Your task to perform on an android device: turn notification dots off Image 0: 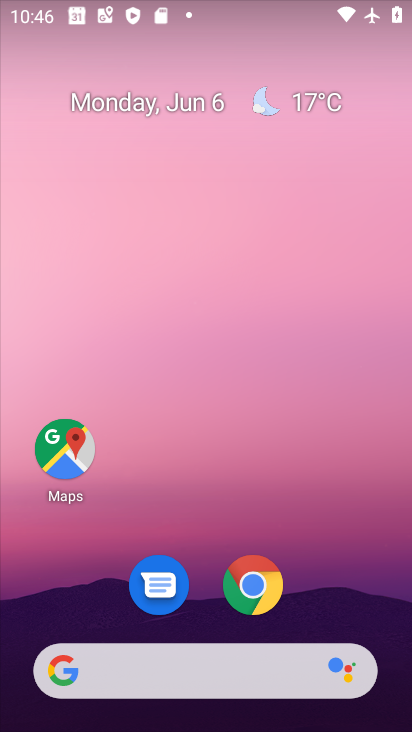
Step 0: drag from (202, 491) to (217, 12)
Your task to perform on an android device: turn notification dots off Image 1: 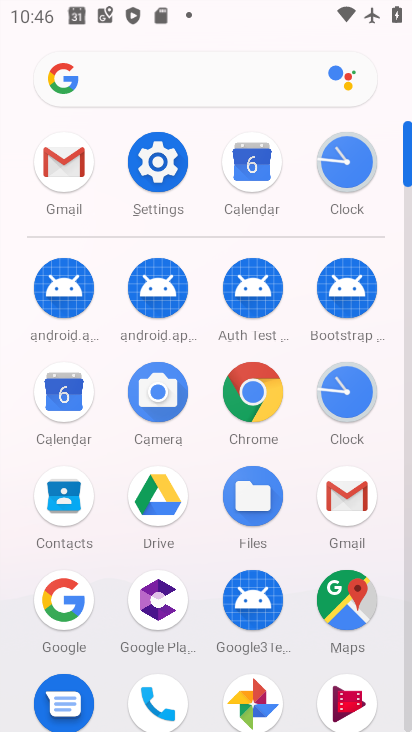
Step 1: click (166, 163)
Your task to perform on an android device: turn notification dots off Image 2: 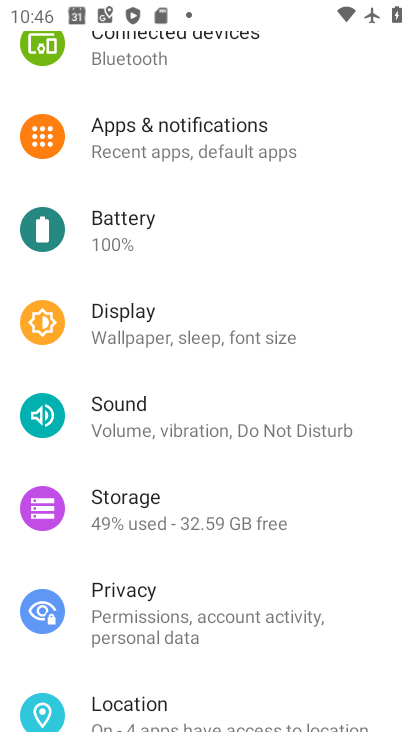
Step 2: click (182, 139)
Your task to perform on an android device: turn notification dots off Image 3: 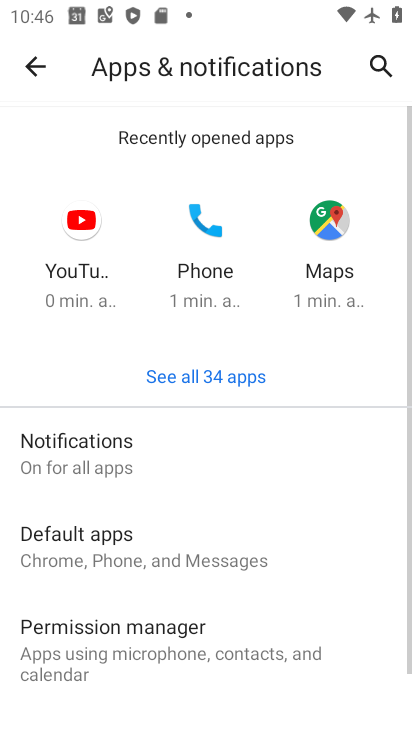
Step 3: click (173, 459)
Your task to perform on an android device: turn notification dots off Image 4: 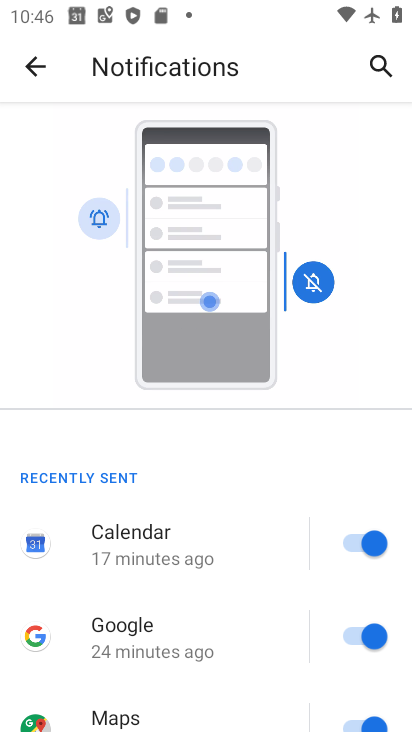
Step 4: drag from (240, 590) to (306, 3)
Your task to perform on an android device: turn notification dots off Image 5: 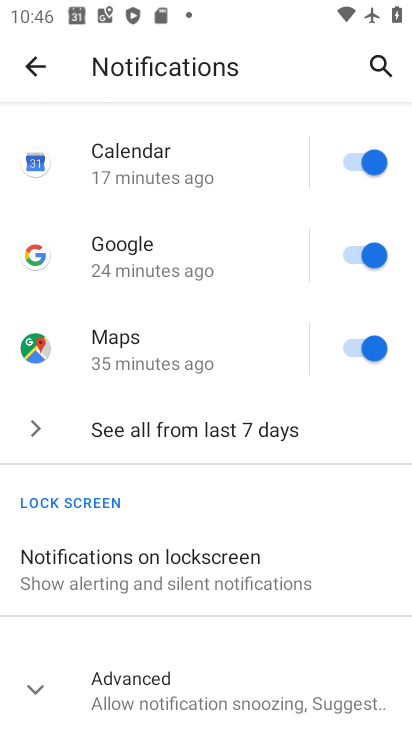
Step 5: click (34, 682)
Your task to perform on an android device: turn notification dots off Image 6: 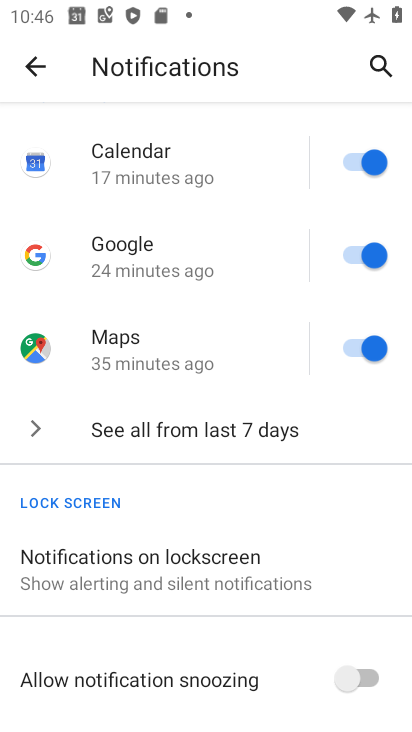
Step 6: task complete